Your task to perform on an android device: Go to Android settings Image 0: 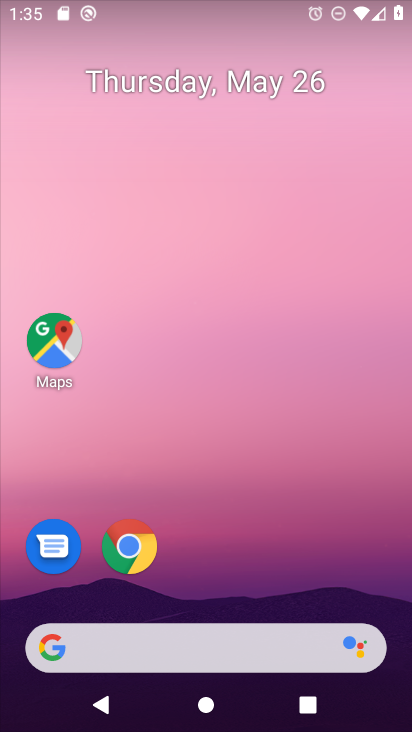
Step 0: drag from (209, 614) to (310, 180)
Your task to perform on an android device: Go to Android settings Image 1: 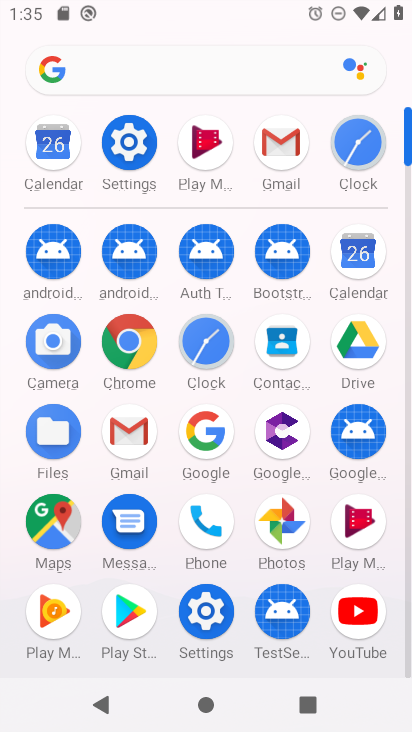
Step 1: click (138, 138)
Your task to perform on an android device: Go to Android settings Image 2: 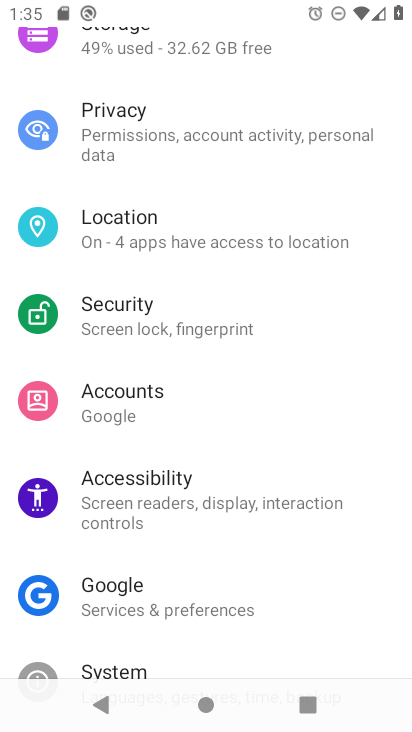
Step 2: task complete